Your task to perform on an android device: manage bookmarks in the chrome app Image 0: 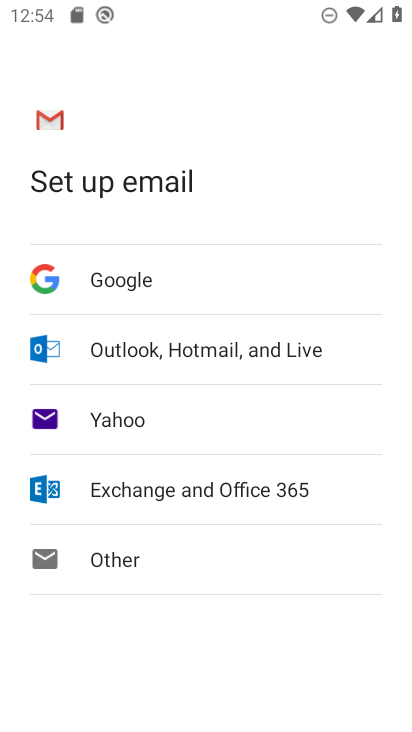
Step 0: press home button
Your task to perform on an android device: manage bookmarks in the chrome app Image 1: 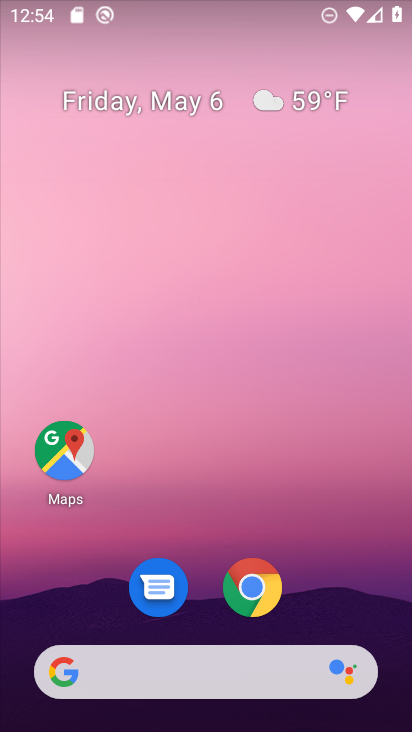
Step 1: click (242, 583)
Your task to perform on an android device: manage bookmarks in the chrome app Image 2: 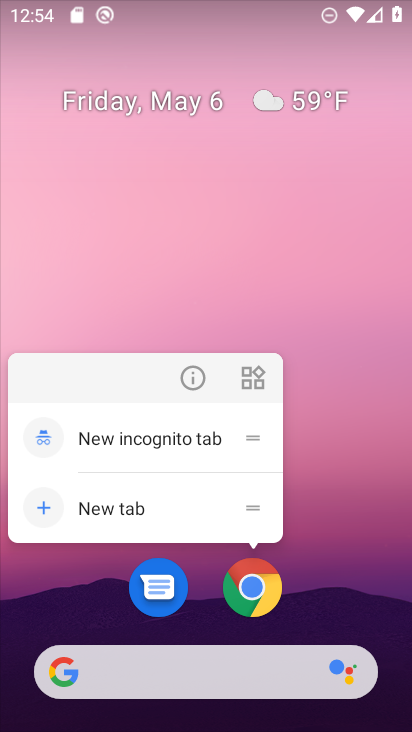
Step 2: click (239, 586)
Your task to perform on an android device: manage bookmarks in the chrome app Image 3: 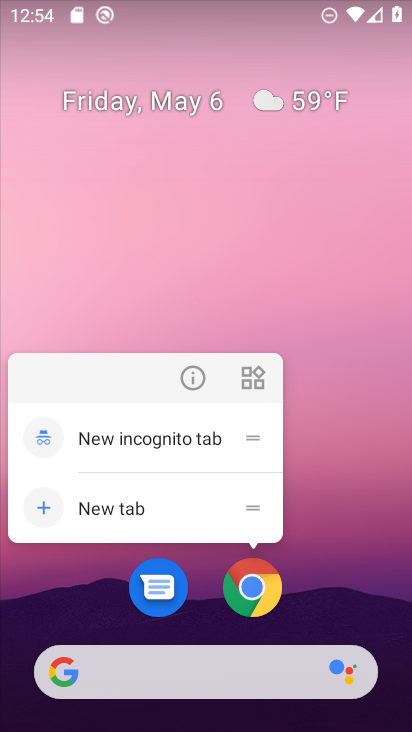
Step 3: click (245, 589)
Your task to perform on an android device: manage bookmarks in the chrome app Image 4: 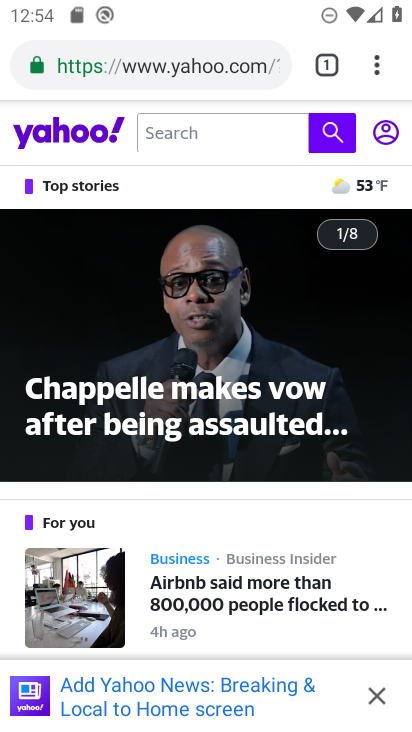
Step 4: click (371, 67)
Your task to perform on an android device: manage bookmarks in the chrome app Image 5: 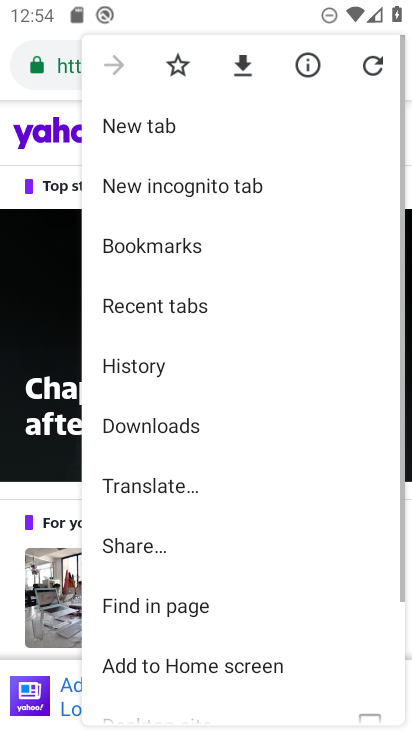
Step 5: click (371, 67)
Your task to perform on an android device: manage bookmarks in the chrome app Image 6: 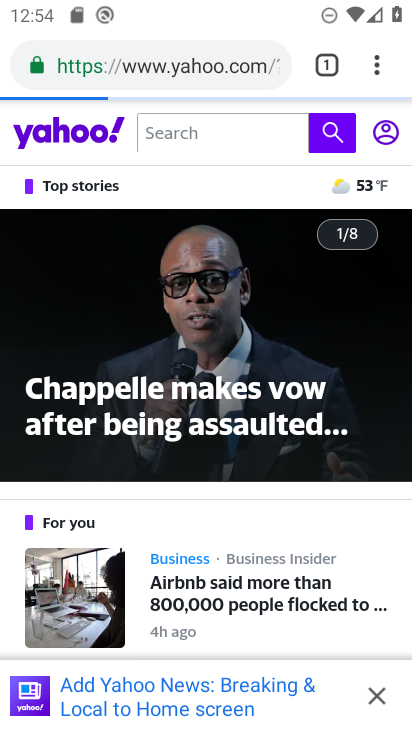
Step 6: click (371, 67)
Your task to perform on an android device: manage bookmarks in the chrome app Image 7: 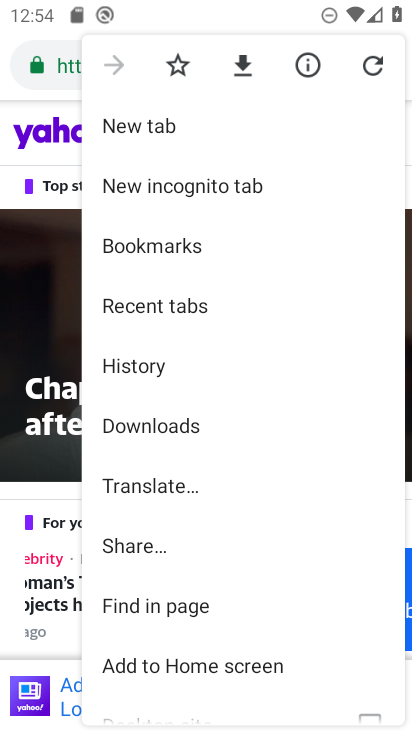
Step 7: click (154, 240)
Your task to perform on an android device: manage bookmarks in the chrome app Image 8: 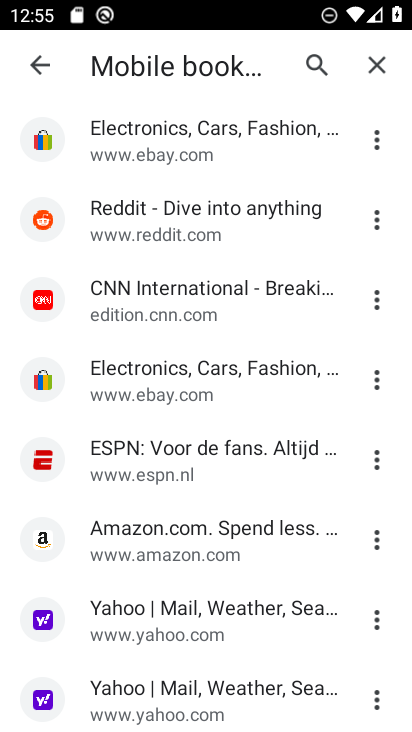
Step 8: task complete